Your task to perform on an android device: Search for vegetarian restaurants on Maps Image 0: 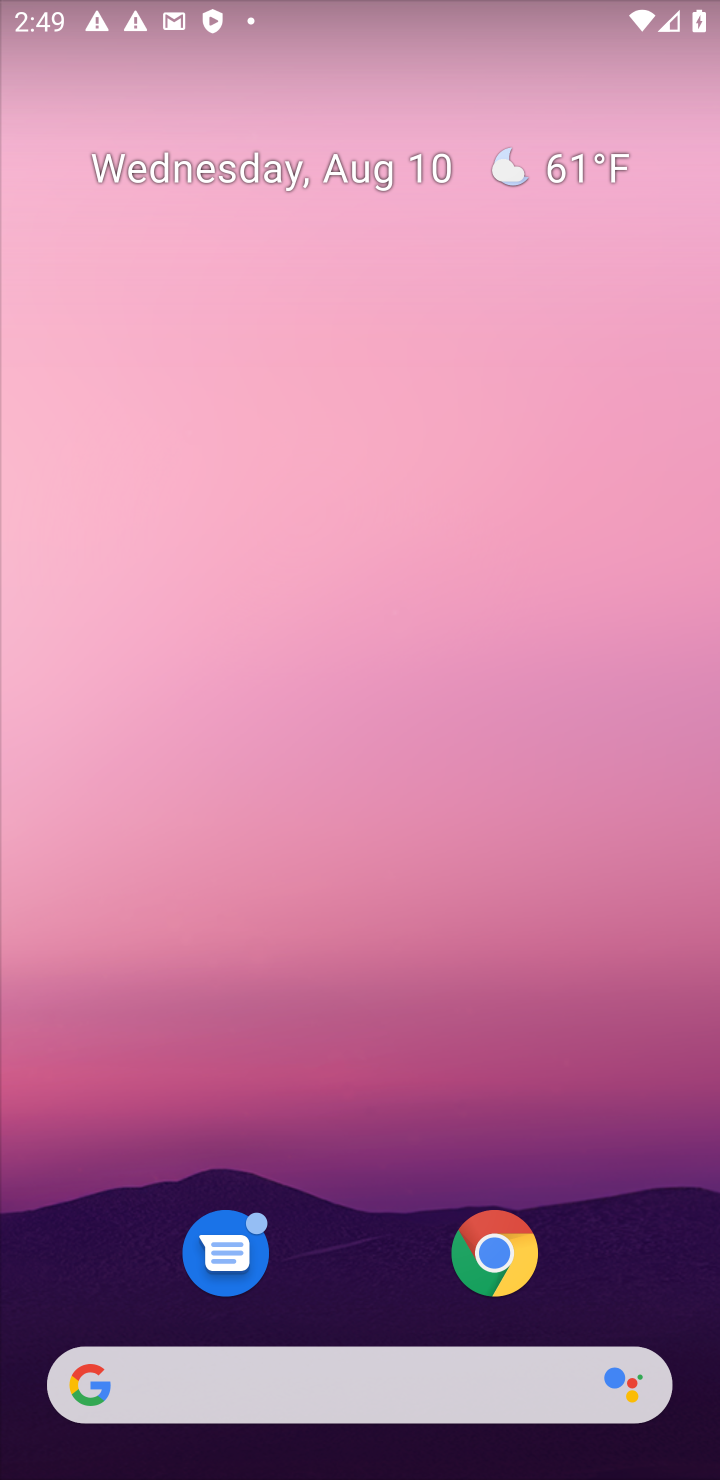
Step 0: drag from (394, 1209) to (477, 185)
Your task to perform on an android device: Search for vegetarian restaurants on Maps Image 1: 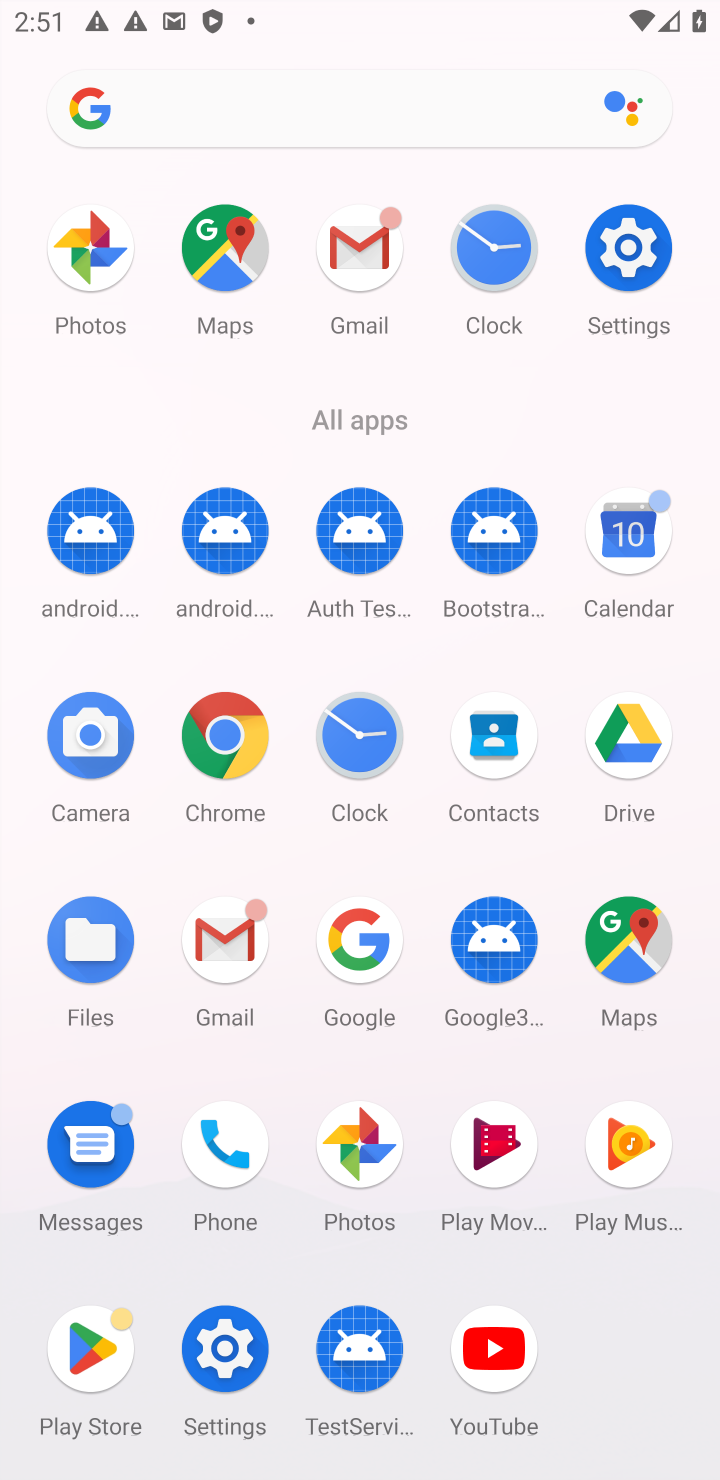
Step 1: click (237, 235)
Your task to perform on an android device: Search for vegetarian restaurants on Maps Image 2: 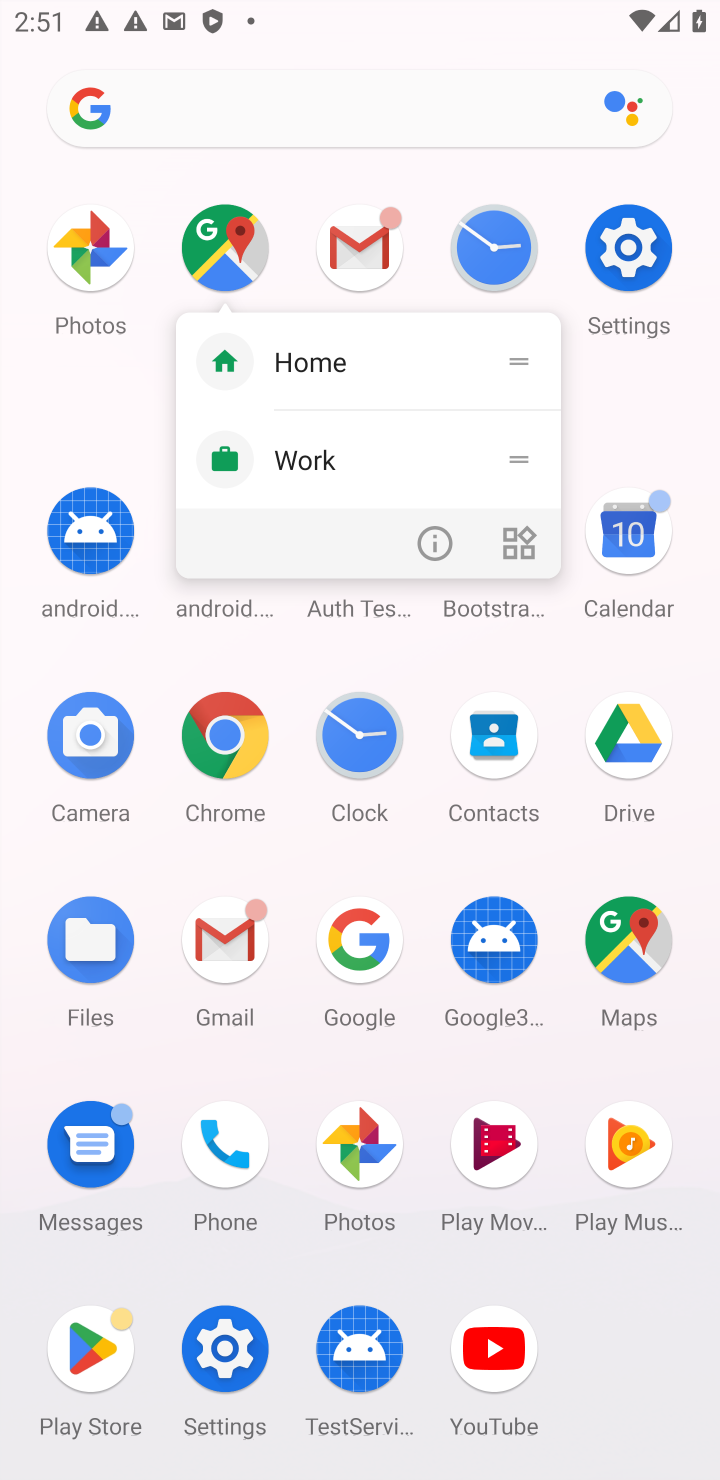
Step 2: task complete